Your task to perform on an android device: Check the weather Image 0: 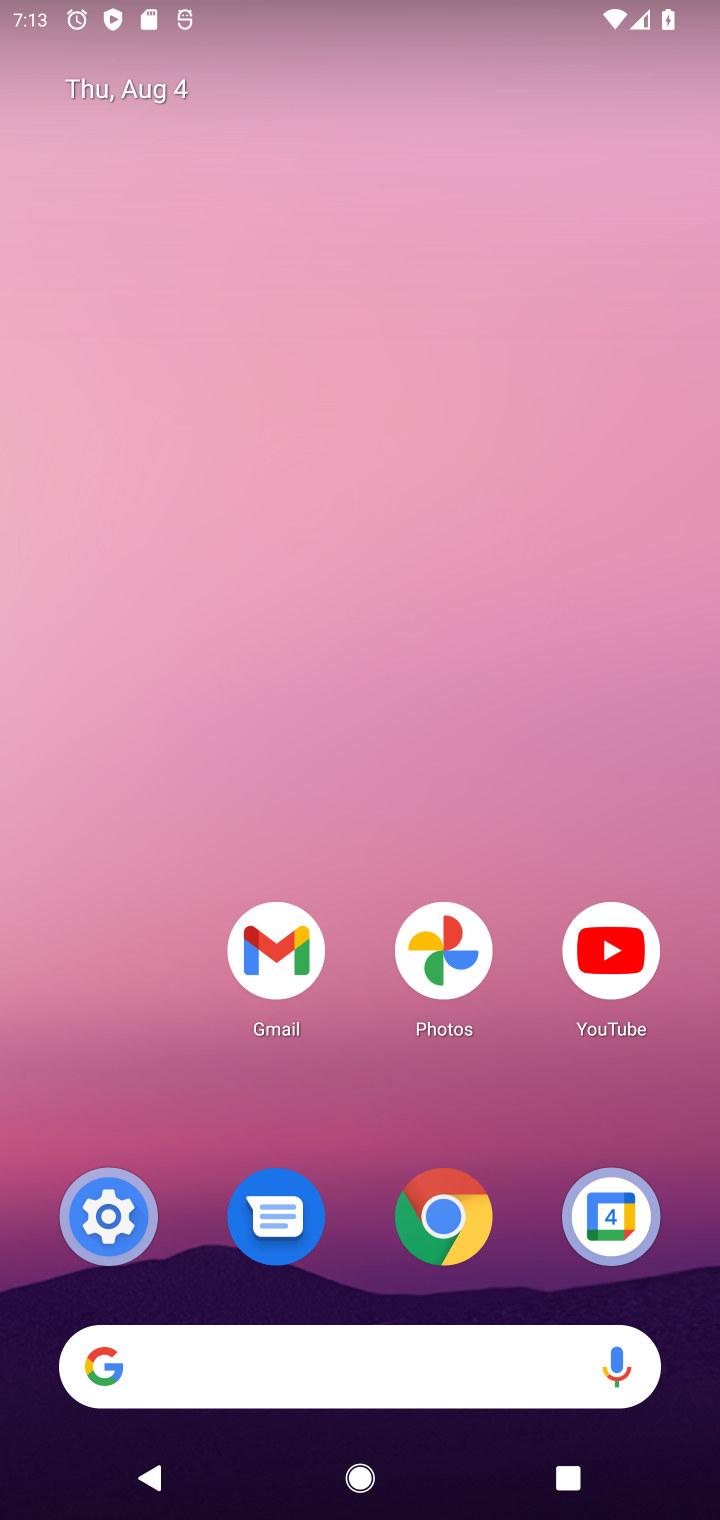
Step 0: click (491, 1357)
Your task to perform on an android device: Check the weather Image 1: 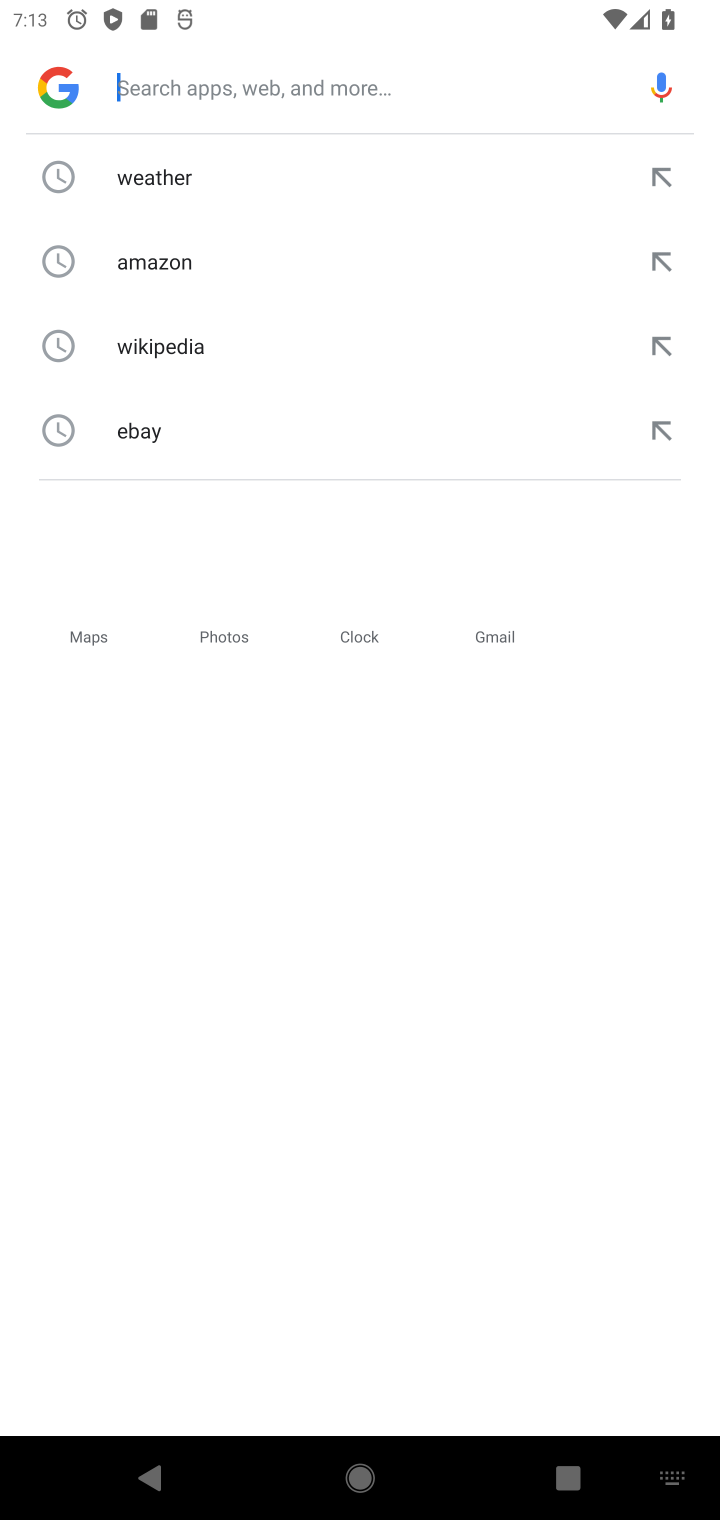
Step 1: click (184, 169)
Your task to perform on an android device: Check the weather Image 2: 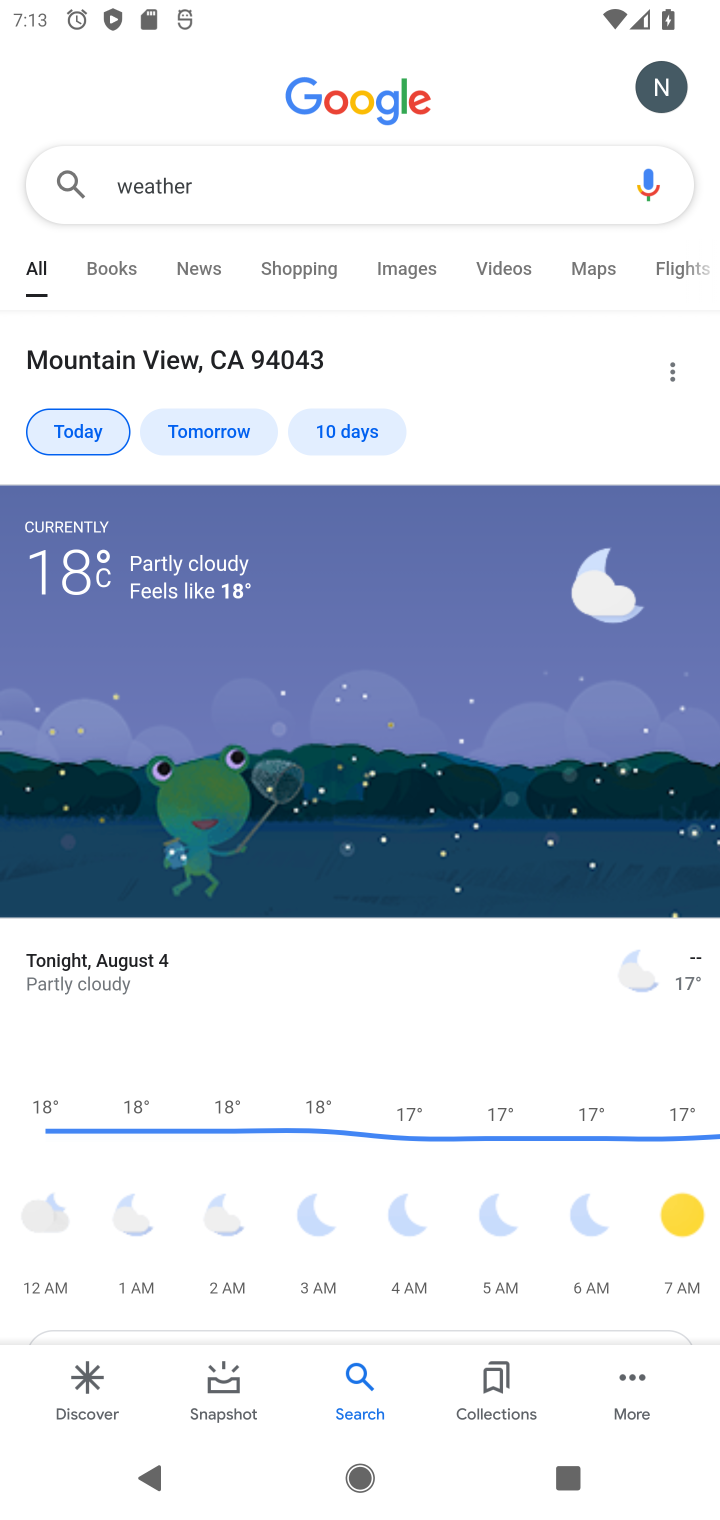
Step 2: task complete